Your task to perform on an android device: turn on airplane mode Image 0: 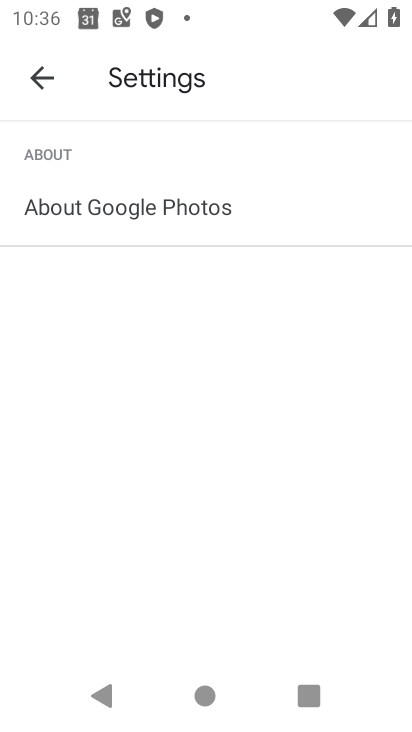
Step 0: press home button
Your task to perform on an android device: turn on airplane mode Image 1: 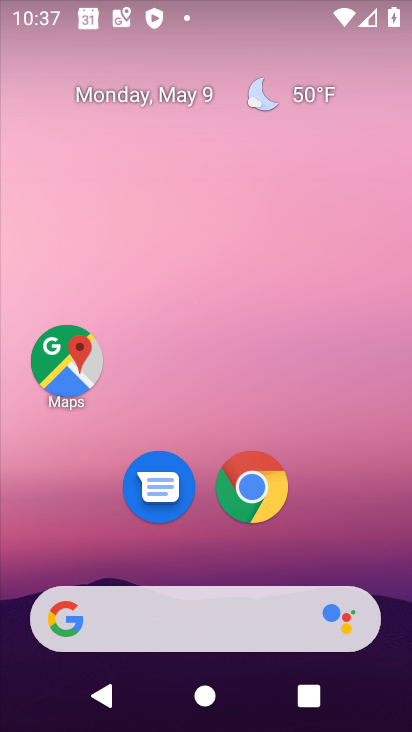
Step 1: drag from (13, 635) to (61, 557)
Your task to perform on an android device: turn on airplane mode Image 2: 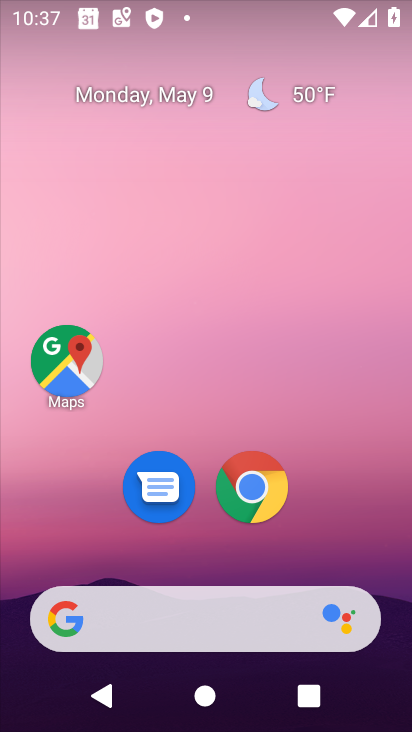
Step 2: drag from (17, 641) to (308, 67)
Your task to perform on an android device: turn on airplane mode Image 3: 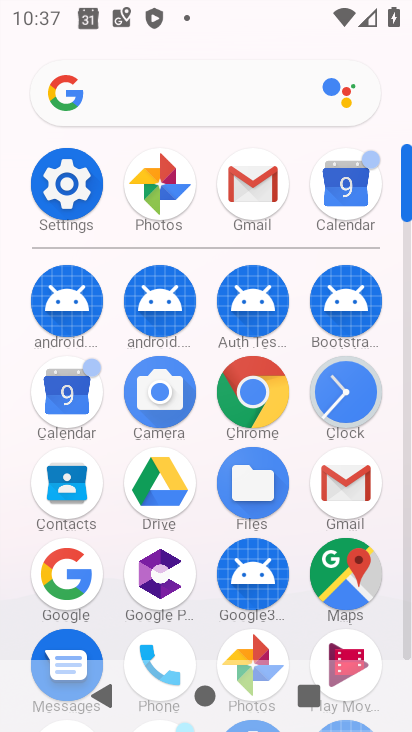
Step 3: click (76, 180)
Your task to perform on an android device: turn on airplane mode Image 4: 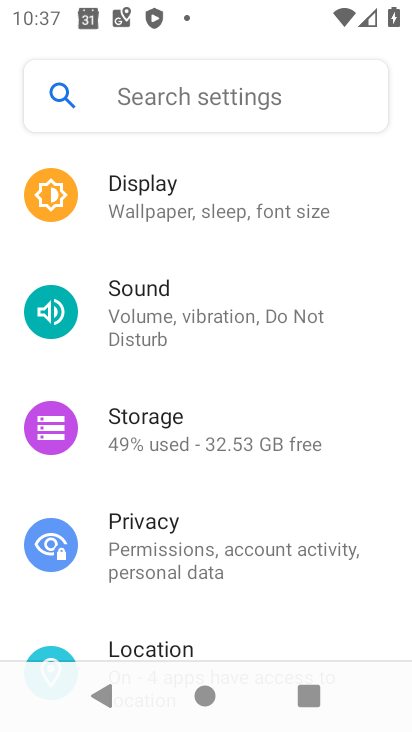
Step 4: task complete